Your task to perform on an android device: change the clock display to digital Image 0: 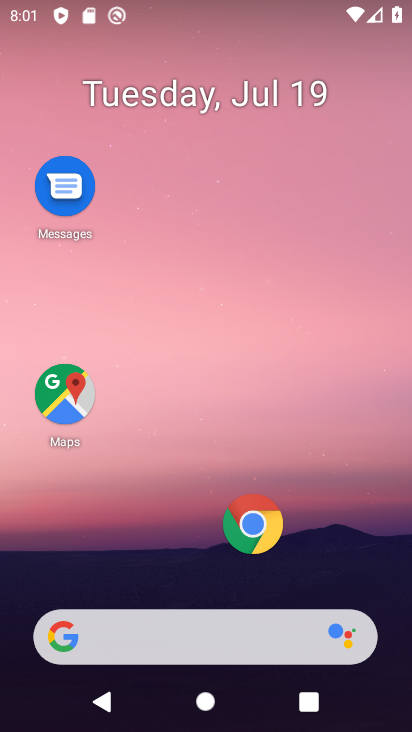
Step 0: drag from (216, 585) to (179, 63)
Your task to perform on an android device: change the clock display to digital Image 1: 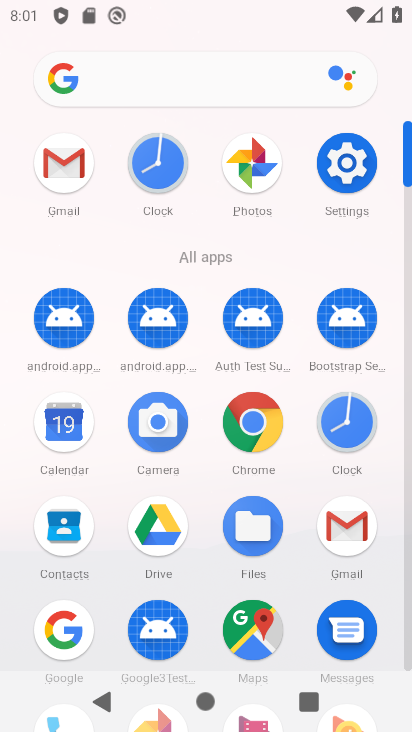
Step 1: click (356, 436)
Your task to perform on an android device: change the clock display to digital Image 2: 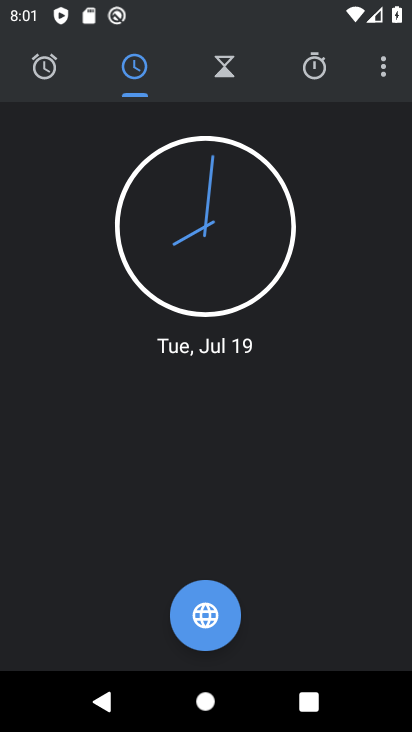
Step 2: click (377, 76)
Your task to perform on an android device: change the clock display to digital Image 3: 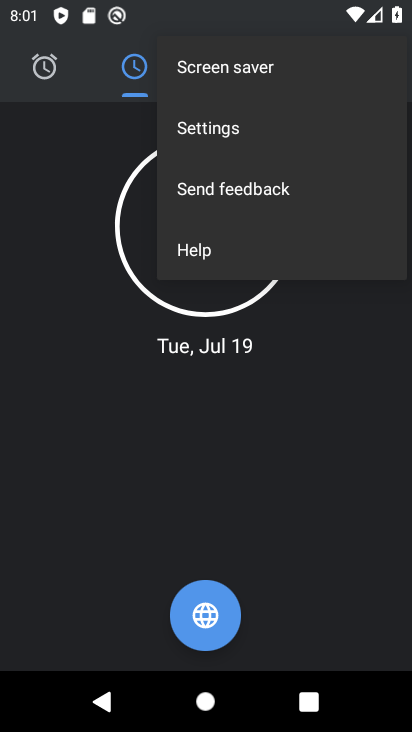
Step 3: click (240, 122)
Your task to perform on an android device: change the clock display to digital Image 4: 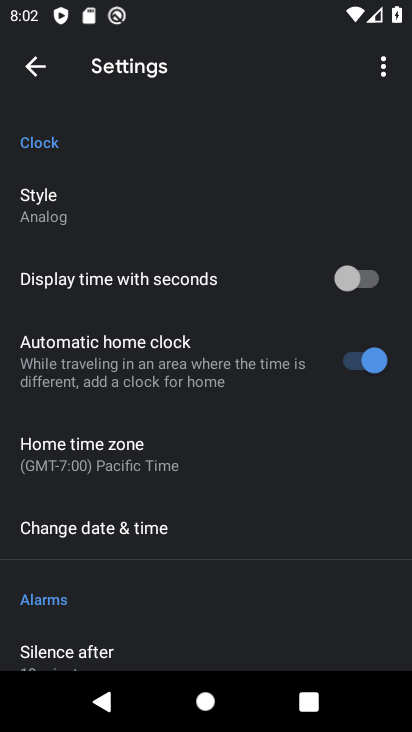
Step 4: click (47, 215)
Your task to perform on an android device: change the clock display to digital Image 5: 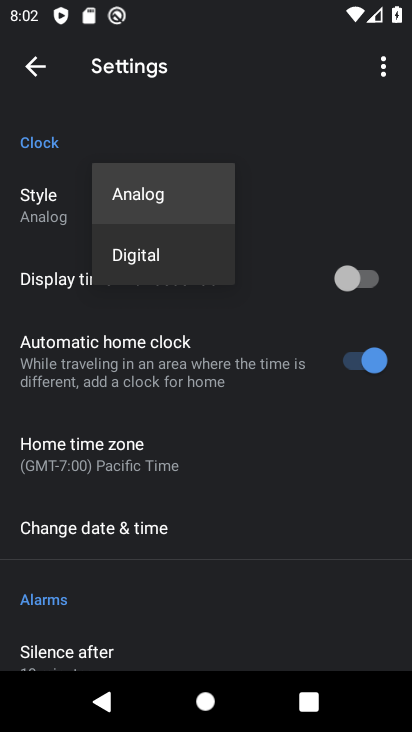
Step 5: click (121, 247)
Your task to perform on an android device: change the clock display to digital Image 6: 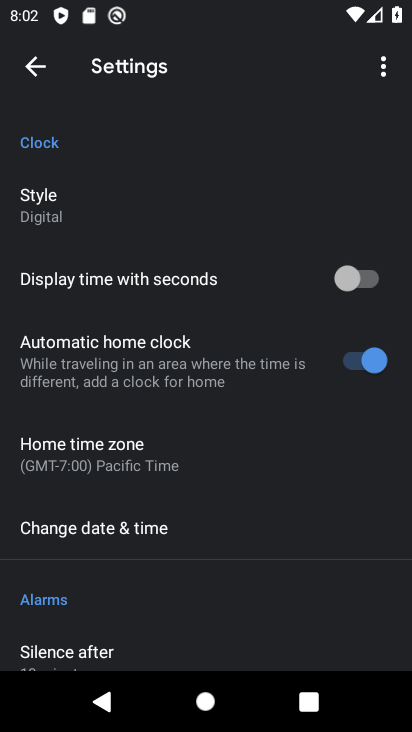
Step 6: task complete